Your task to perform on an android device: Open Reddit.com Image 0: 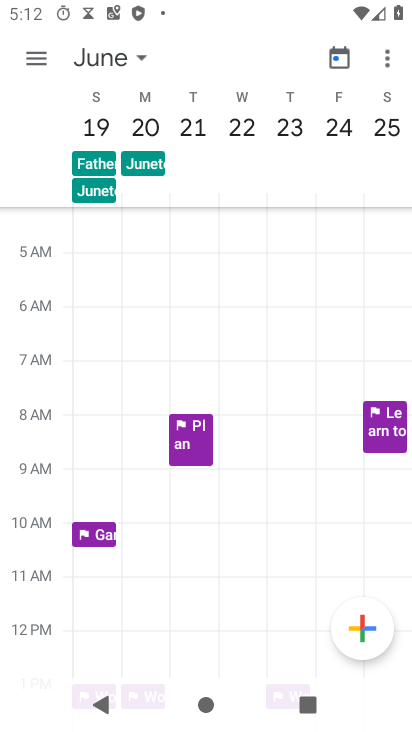
Step 0: press back button
Your task to perform on an android device: Open Reddit.com Image 1: 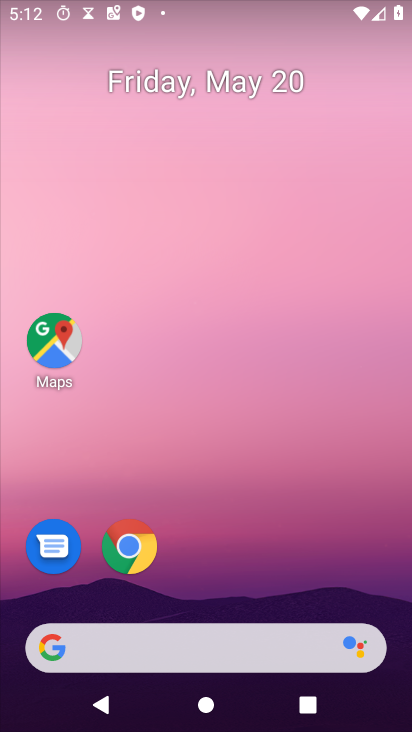
Step 1: click (129, 546)
Your task to perform on an android device: Open Reddit.com Image 2: 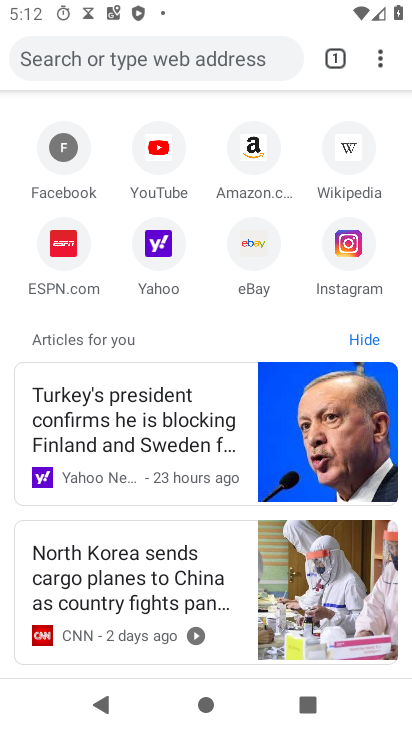
Step 2: click (201, 70)
Your task to perform on an android device: Open Reddit.com Image 3: 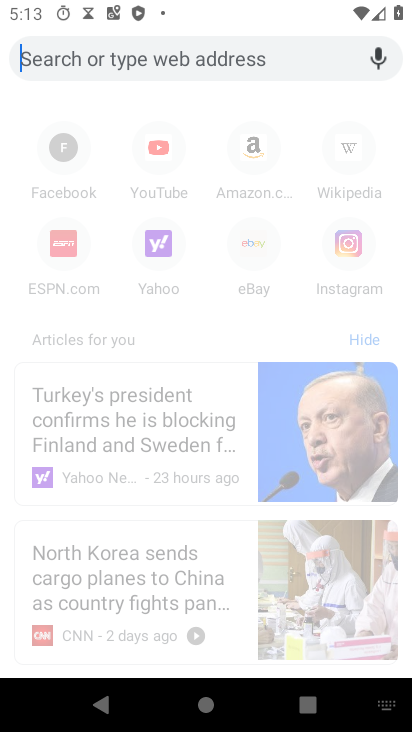
Step 3: type "Reddit.com"
Your task to perform on an android device: Open Reddit.com Image 4: 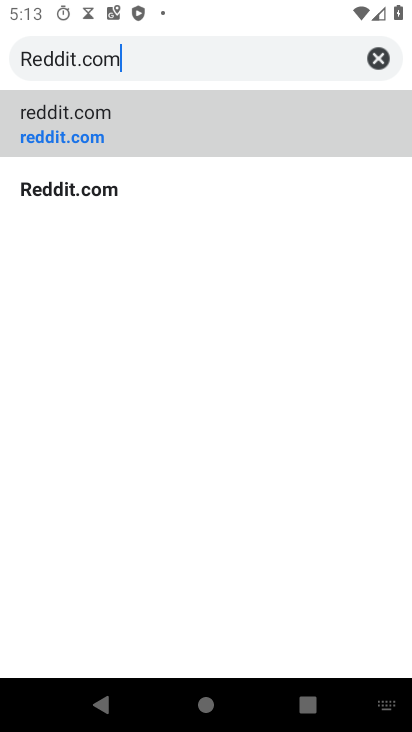
Step 4: click (72, 193)
Your task to perform on an android device: Open Reddit.com Image 5: 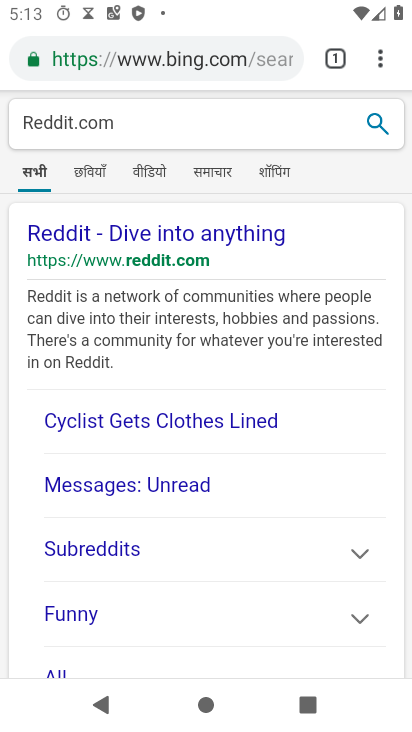
Step 5: click (91, 242)
Your task to perform on an android device: Open Reddit.com Image 6: 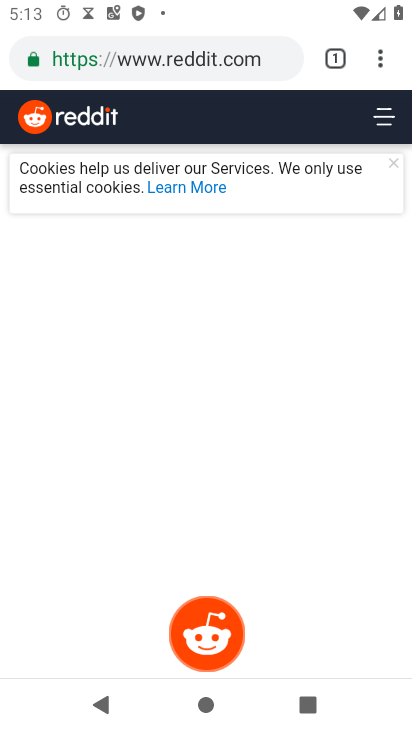
Step 6: task complete